Your task to perform on an android device: Nike Air Max 2020 shoes on Nike.com Image 0: 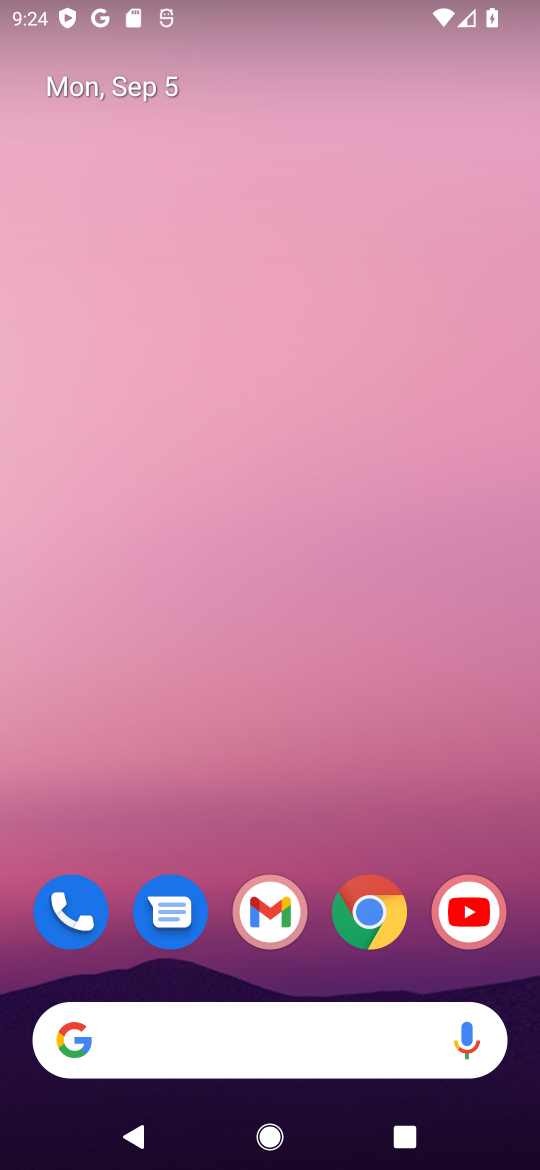
Step 0: click (397, 921)
Your task to perform on an android device: Nike Air Max 2020 shoes on Nike.com Image 1: 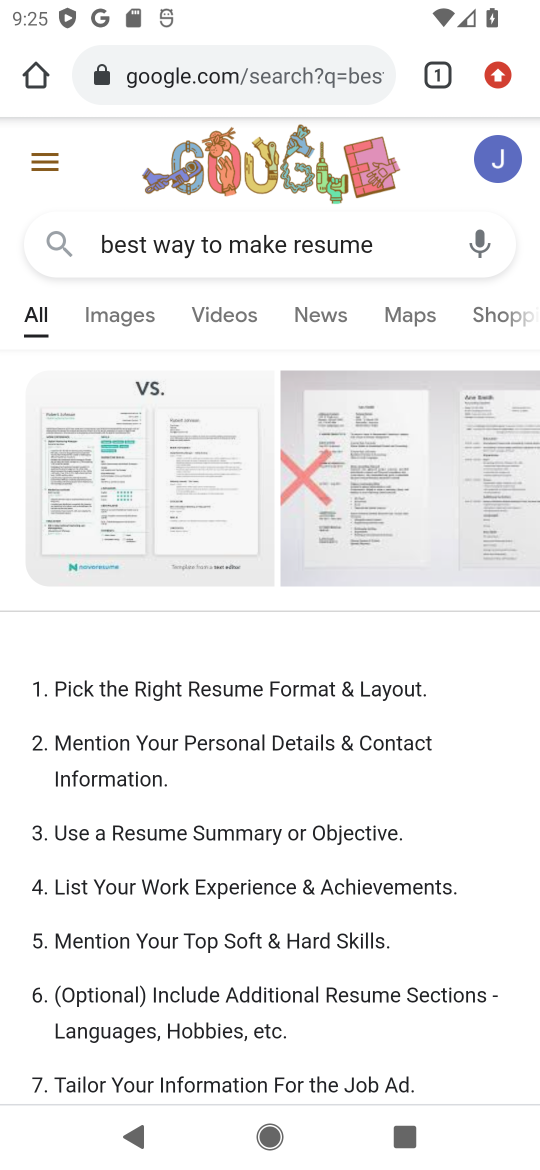
Step 1: click (280, 64)
Your task to perform on an android device: Nike Air Max 2020 shoes on Nike.com Image 2: 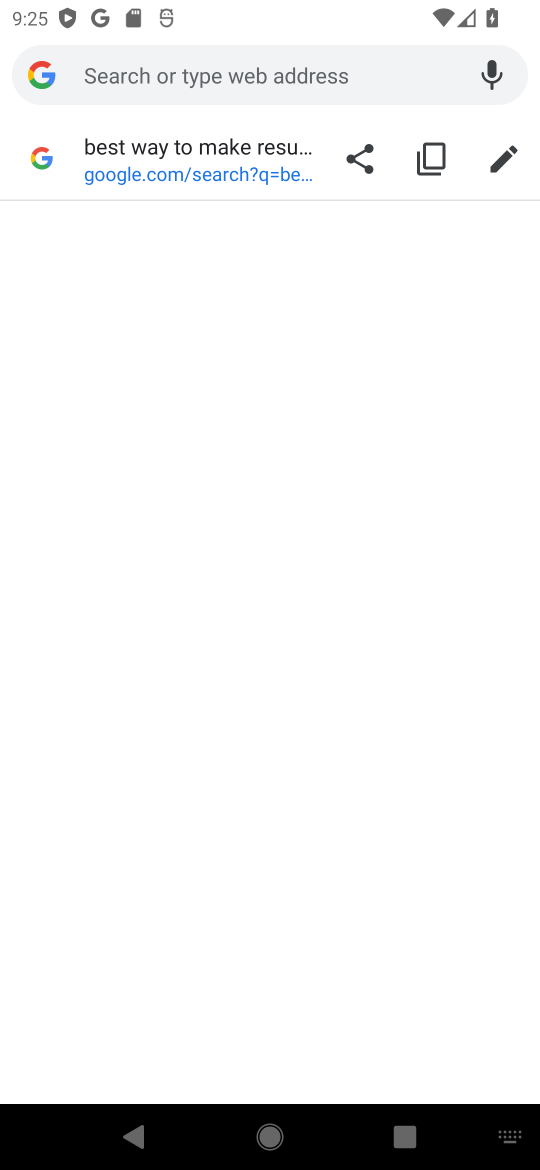
Step 2: type "nike.com"
Your task to perform on an android device: Nike Air Max 2020 shoes on Nike.com Image 3: 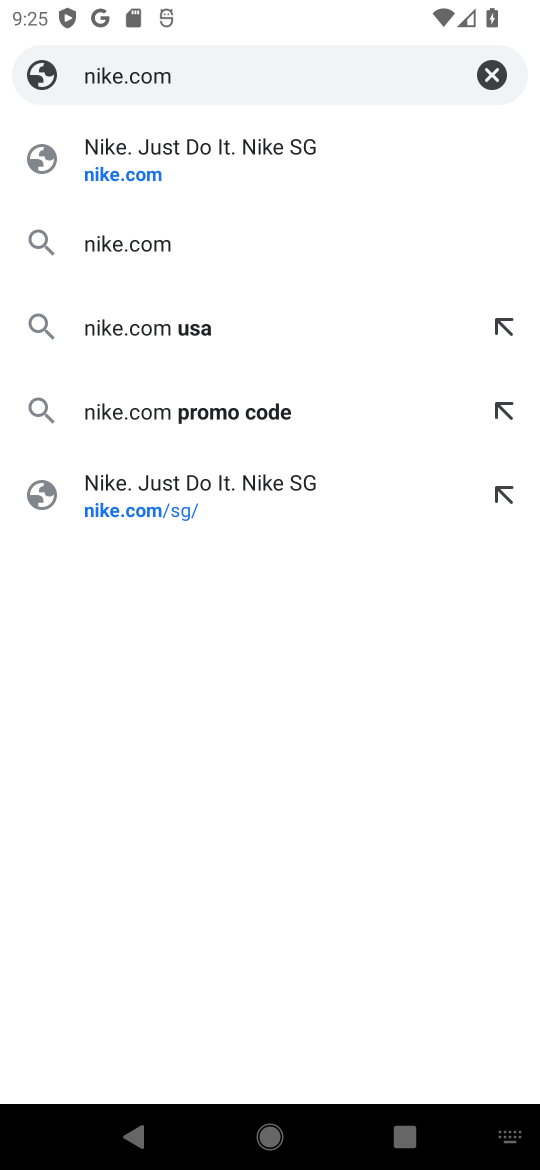
Step 3: click (241, 159)
Your task to perform on an android device: Nike Air Max 2020 shoes on Nike.com Image 4: 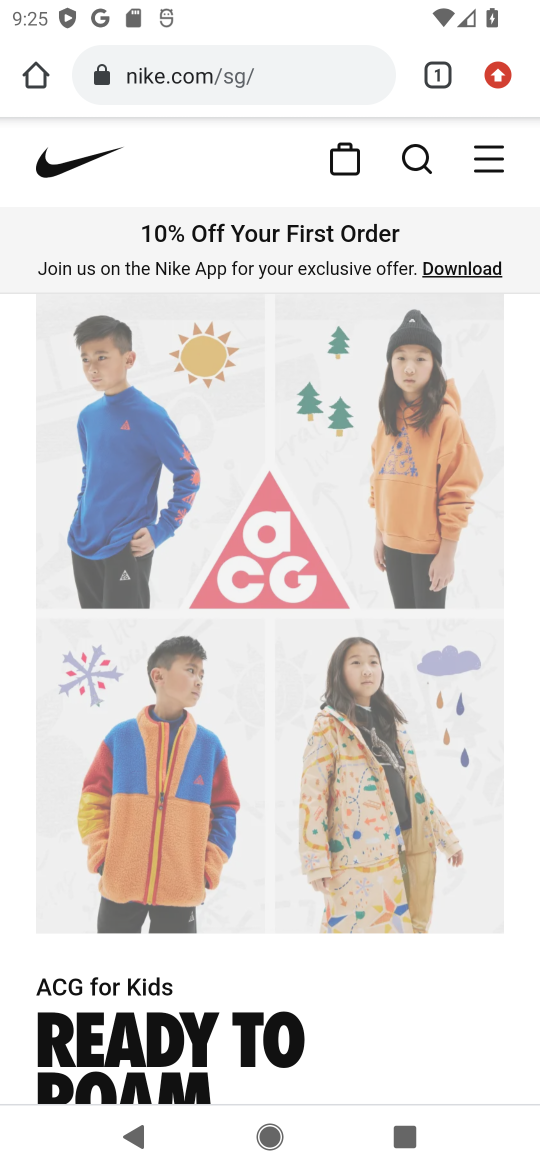
Step 4: click (420, 140)
Your task to perform on an android device: Nike Air Max 2020 shoes on Nike.com Image 5: 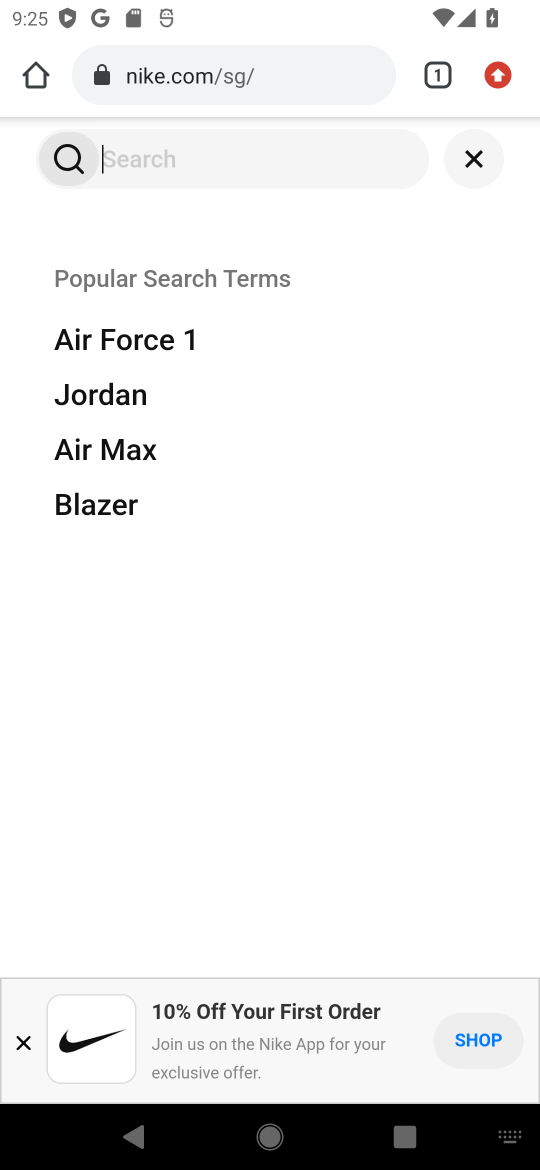
Step 5: type "nike air max 2020 shoes"
Your task to perform on an android device: Nike Air Max 2020 shoes on Nike.com Image 6: 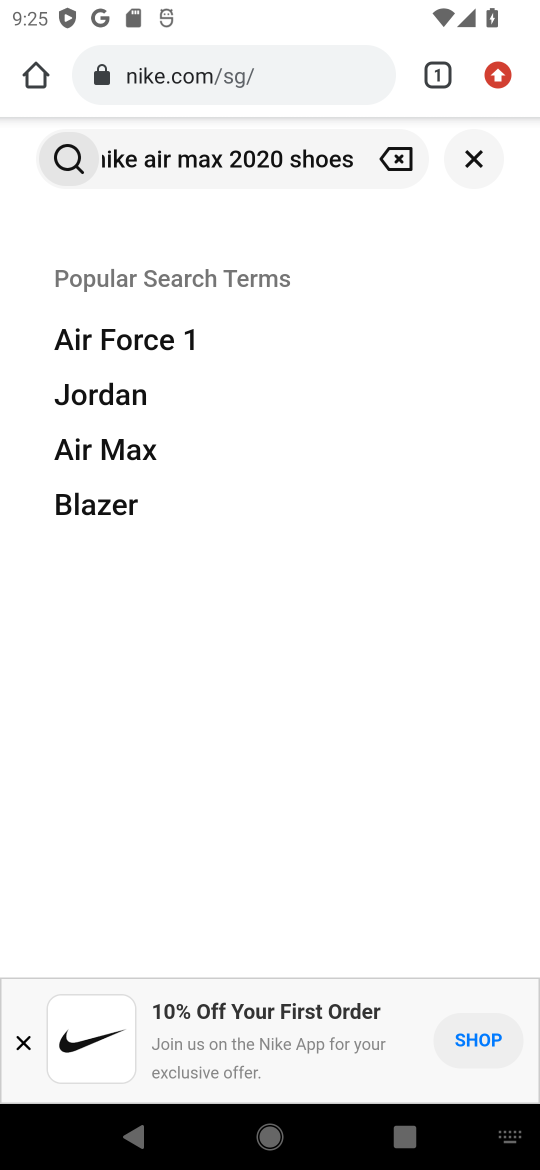
Step 6: press enter
Your task to perform on an android device: Nike Air Max 2020 shoes on Nike.com Image 7: 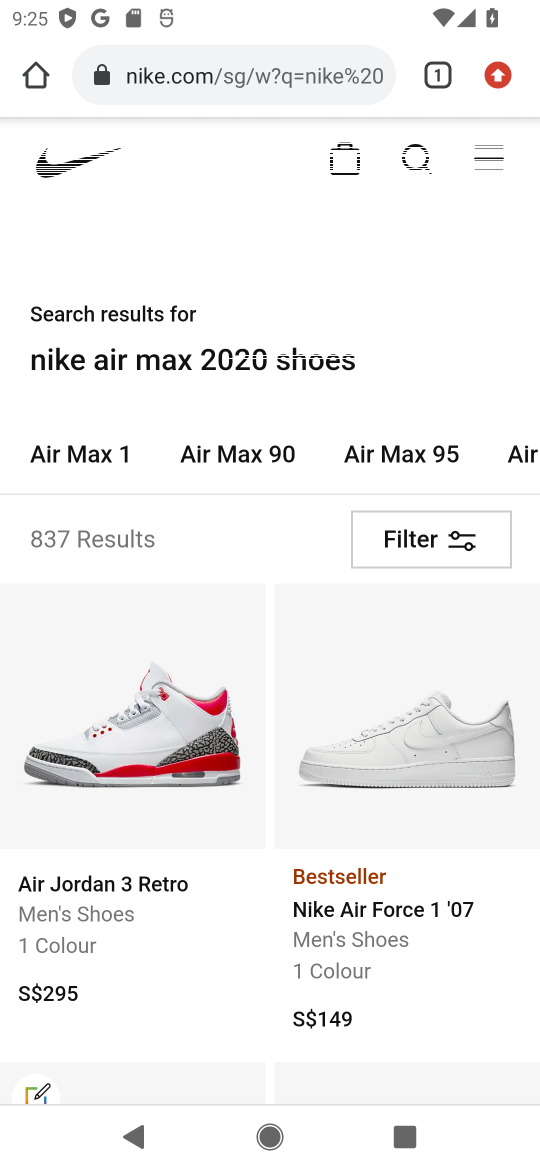
Step 7: task complete